Your task to perform on an android device: check android version Image 0: 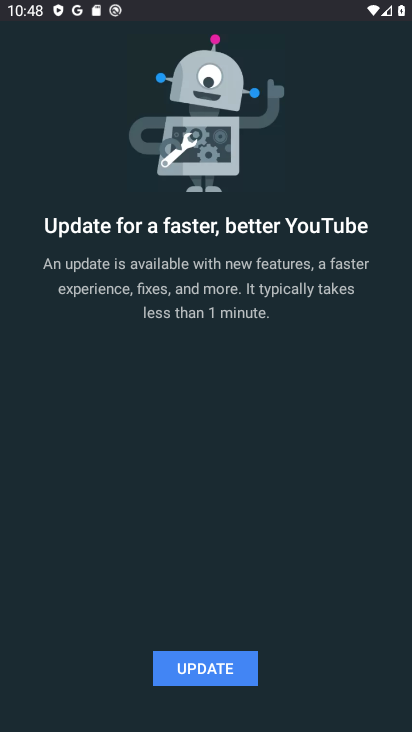
Step 0: task complete